Your task to perform on an android device: Do I have any events today? Image 0: 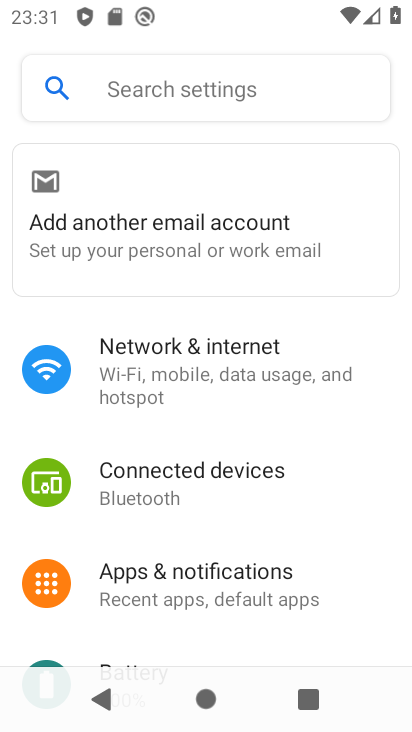
Step 0: press home button
Your task to perform on an android device: Do I have any events today? Image 1: 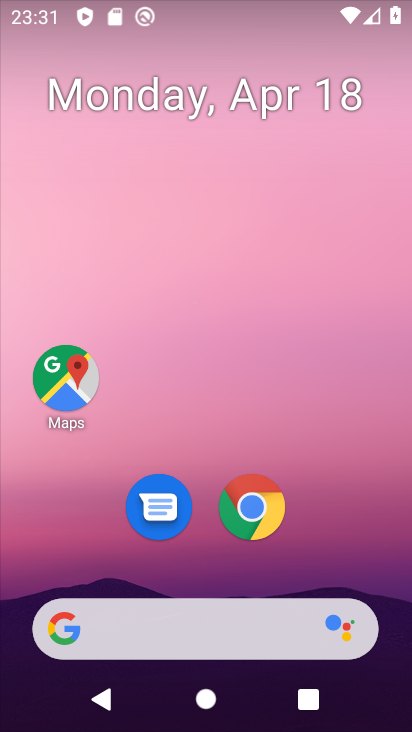
Step 1: drag from (297, 479) to (327, 152)
Your task to perform on an android device: Do I have any events today? Image 2: 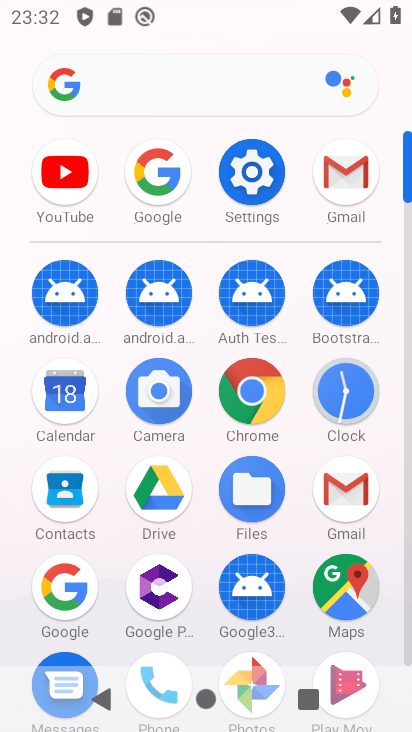
Step 2: click (77, 391)
Your task to perform on an android device: Do I have any events today? Image 3: 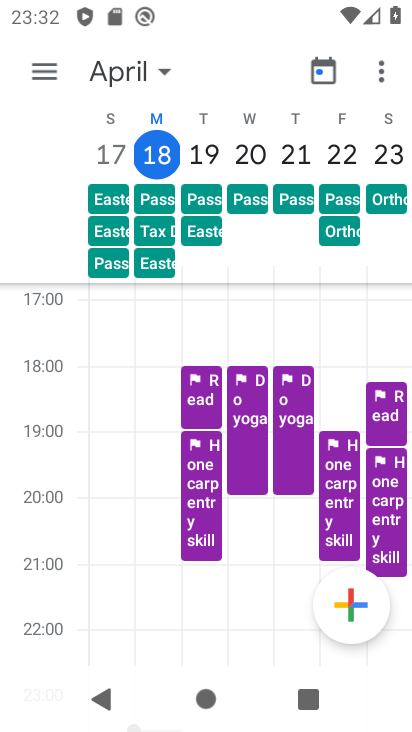
Step 3: drag from (155, 490) to (186, 318)
Your task to perform on an android device: Do I have any events today? Image 4: 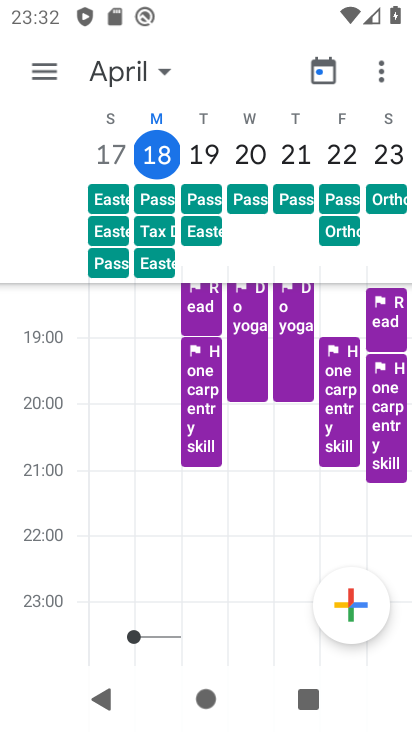
Step 4: drag from (156, 490) to (181, 329)
Your task to perform on an android device: Do I have any events today? Image 5: 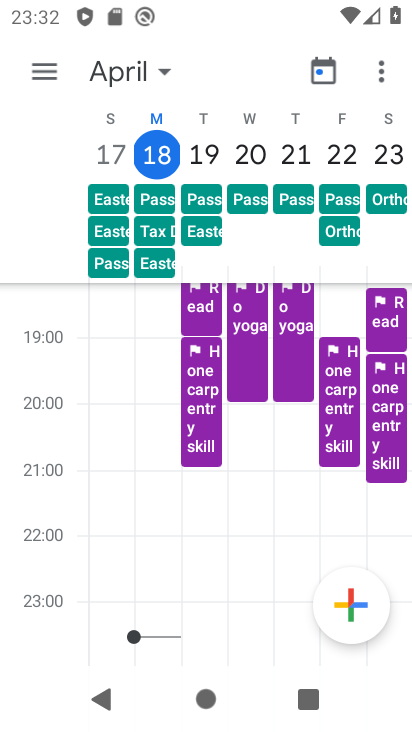
Step 5: drag from (156, 312) to (120, 635)
Your task to perform on an android device: Do I have any events today? Image 6: 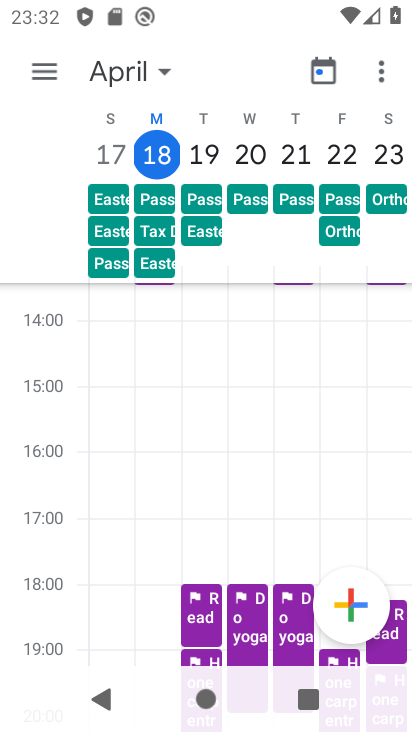
Step 6: drag from (167, 366) to (137, 657)
Your task to perform on an android device: Do I have any events today? Image 7: 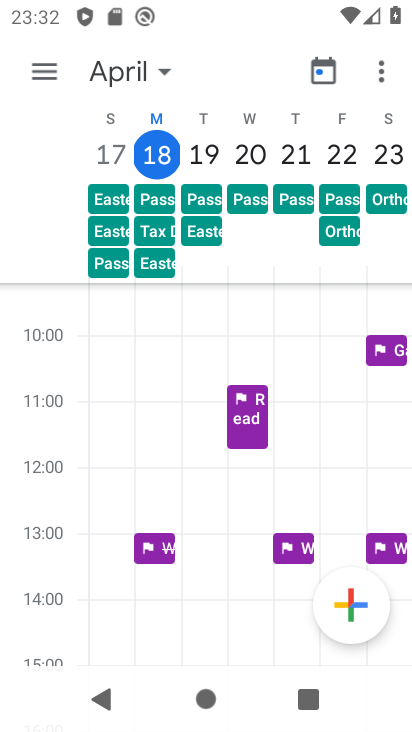
Step 7: drag from (177, 344) to (168, 536)
Your task to perform on an android device: Do I have any events today? Image 8: 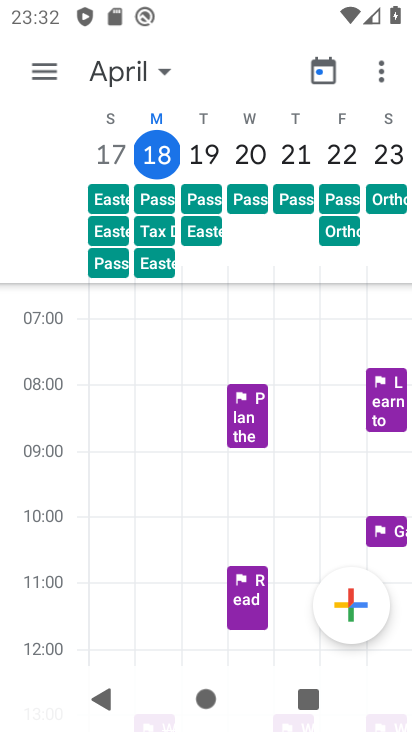
Step 8: drag from (184, 511) to (221, 269)
Your task to perform on an android device: Do I have any events today? Image 9: 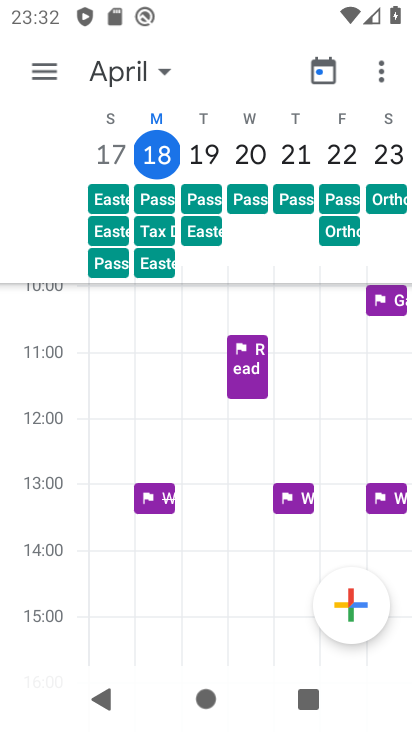
Step 9: click (161, 495)
Your task to perform on an android device: Do I have any events today? Image 10: 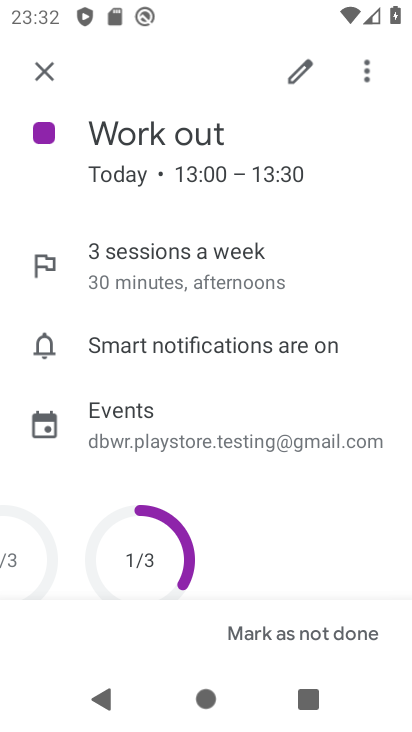
Step 10: task complete